Your task to perform on an android device: Search for Mexican restaurants on Maps Image 0: 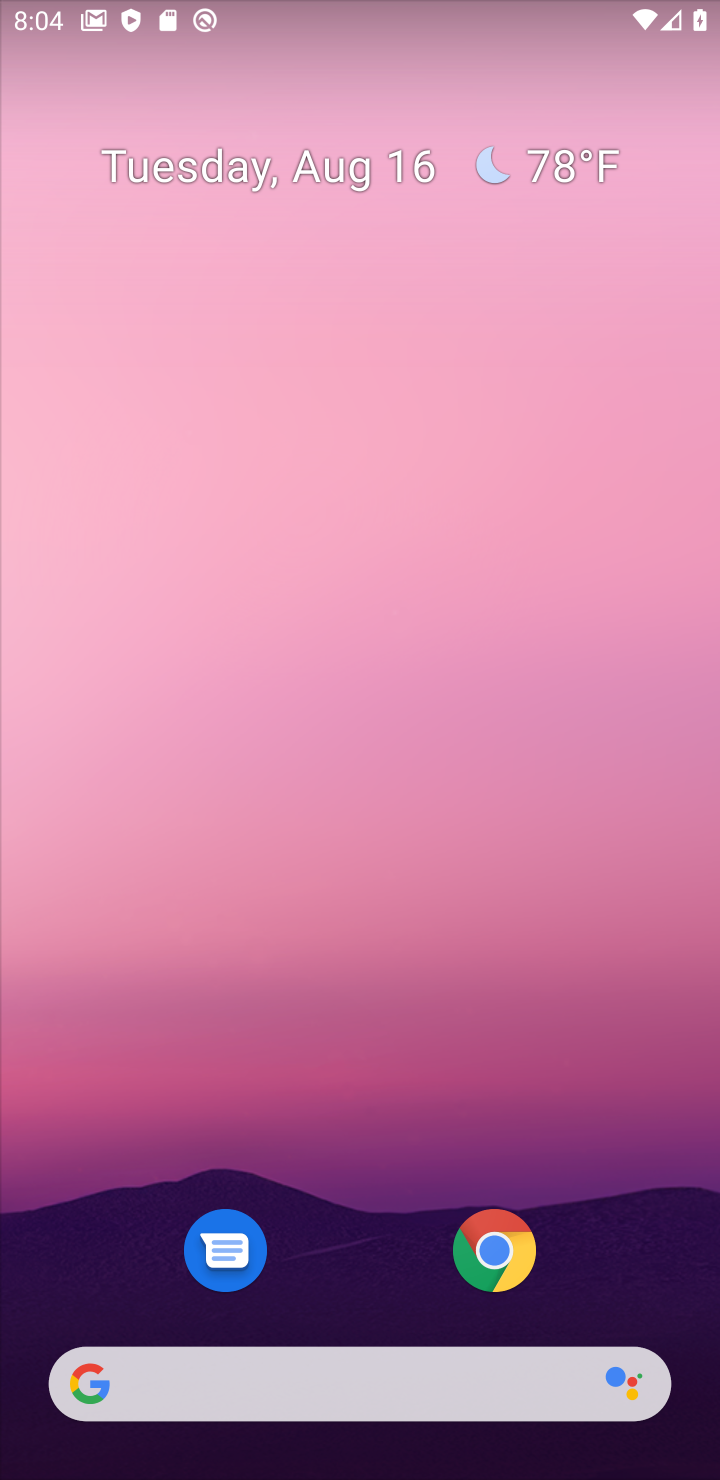
Step 0: drag from (404, 1280) to (275, 261)
Your task to perform on an android device: Search for Mexican restaurants on Maps Image 1: 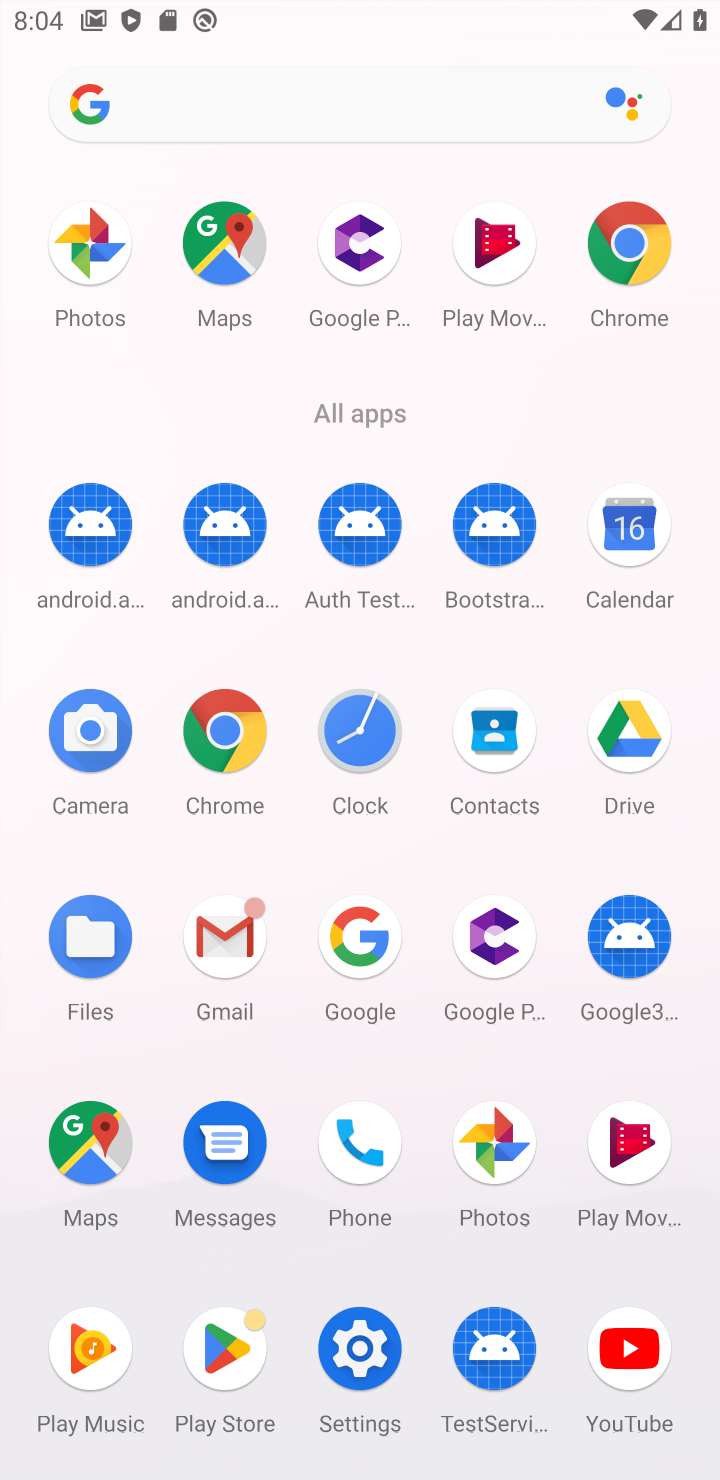
Step 1: click (250, 260)
Your task to perform on an android device: Search for Mexican restaurants on Maps Image 2: 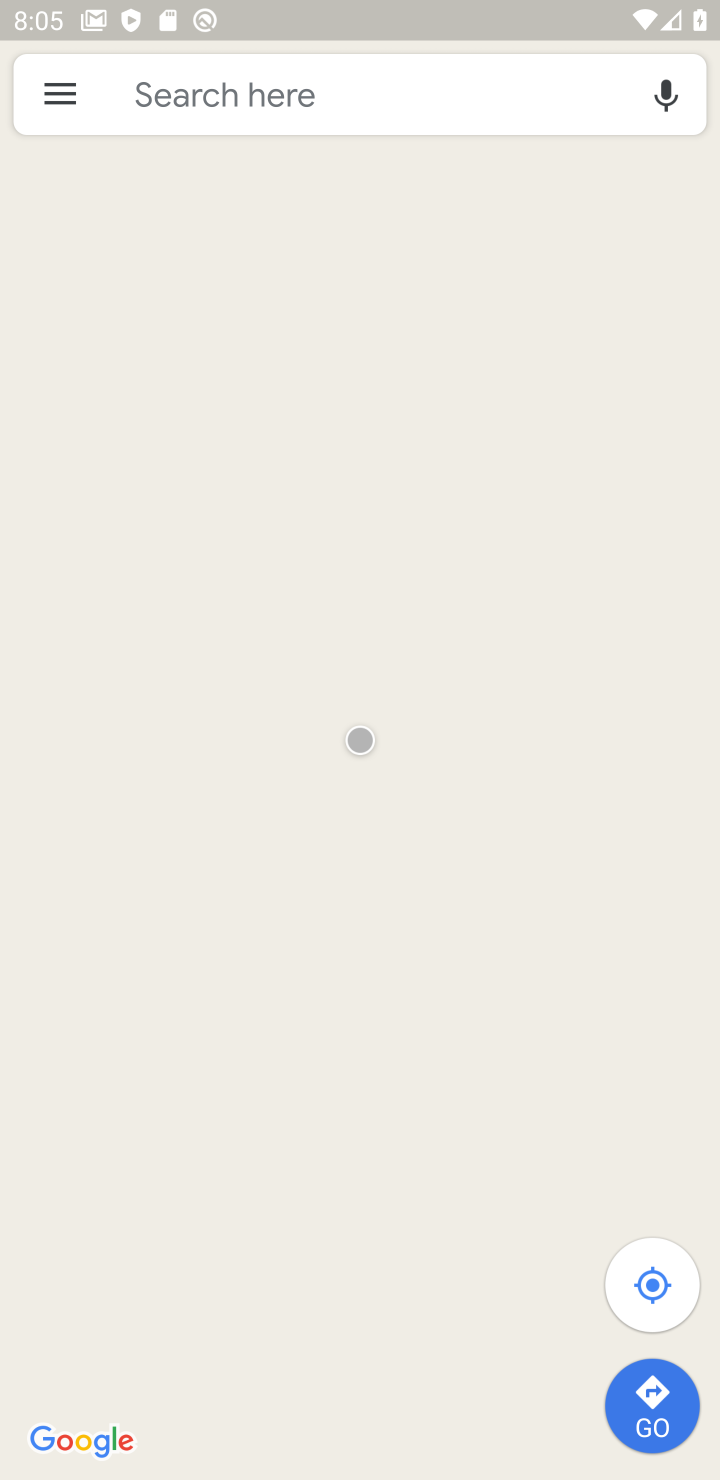
Step 2: click (247, 93)
Your task to perform on an android device: Search for Mexican restaurants on Maps Image 3: 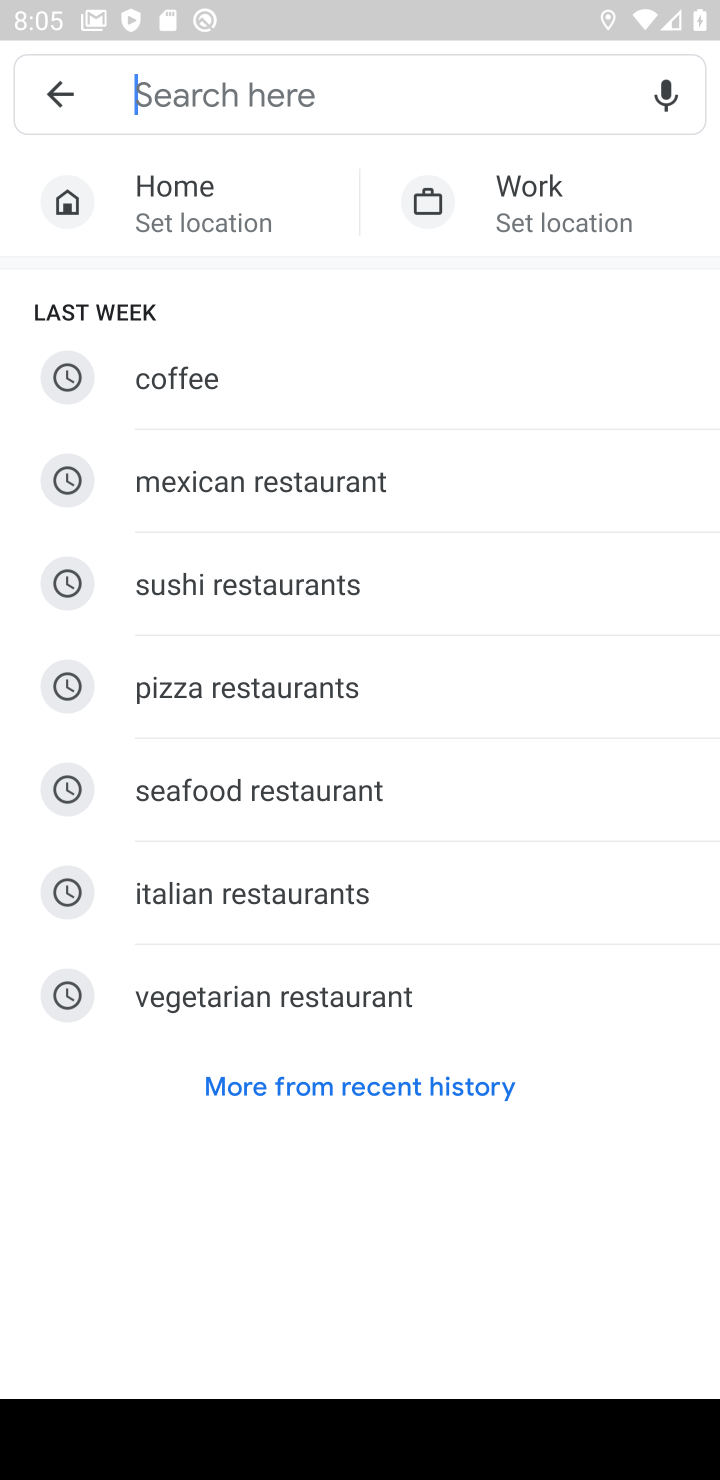
Step 3: type "mexican"
Your task to perform on an android device: Search for Mexican restaurants on Maps Image 4: 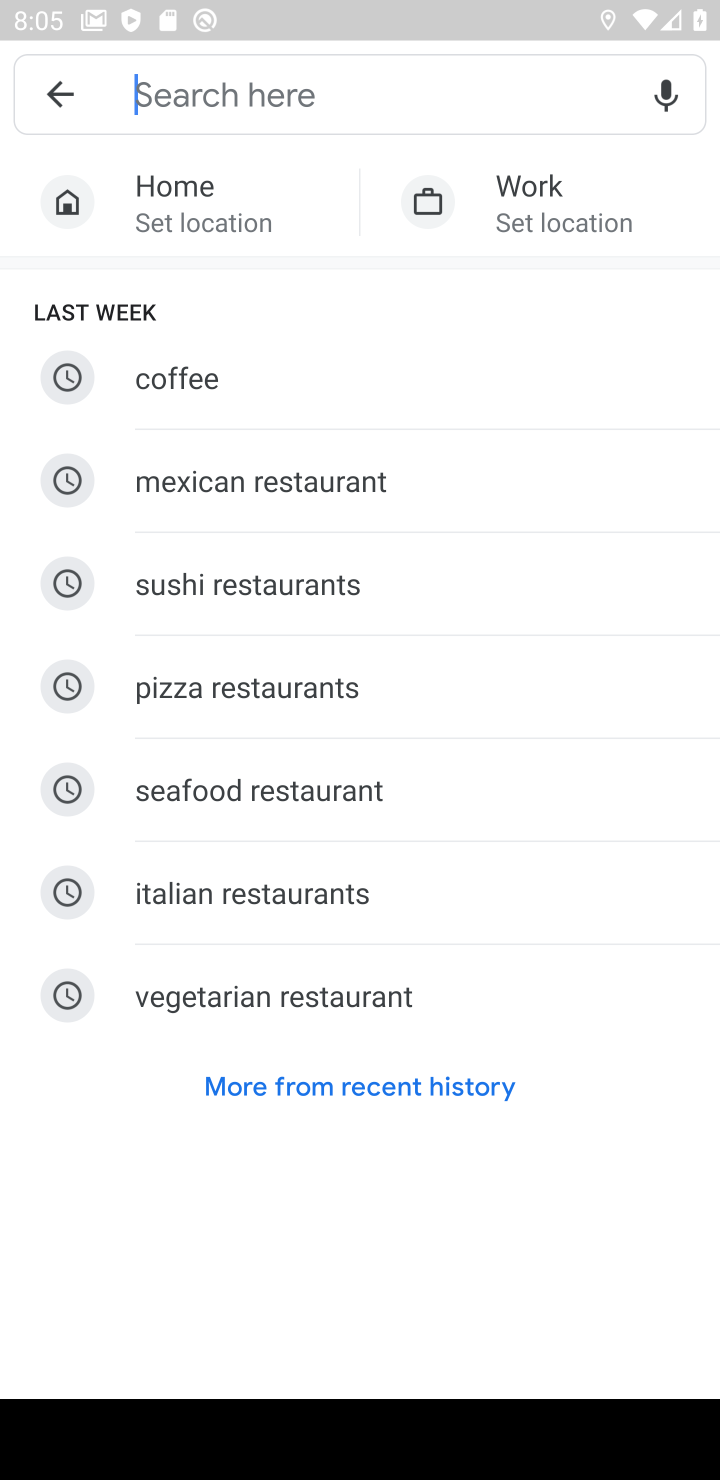
Step 4: click (490, 524)
Your task to perform on an android device: Search for Mexican restaurants on Maps Image 5: 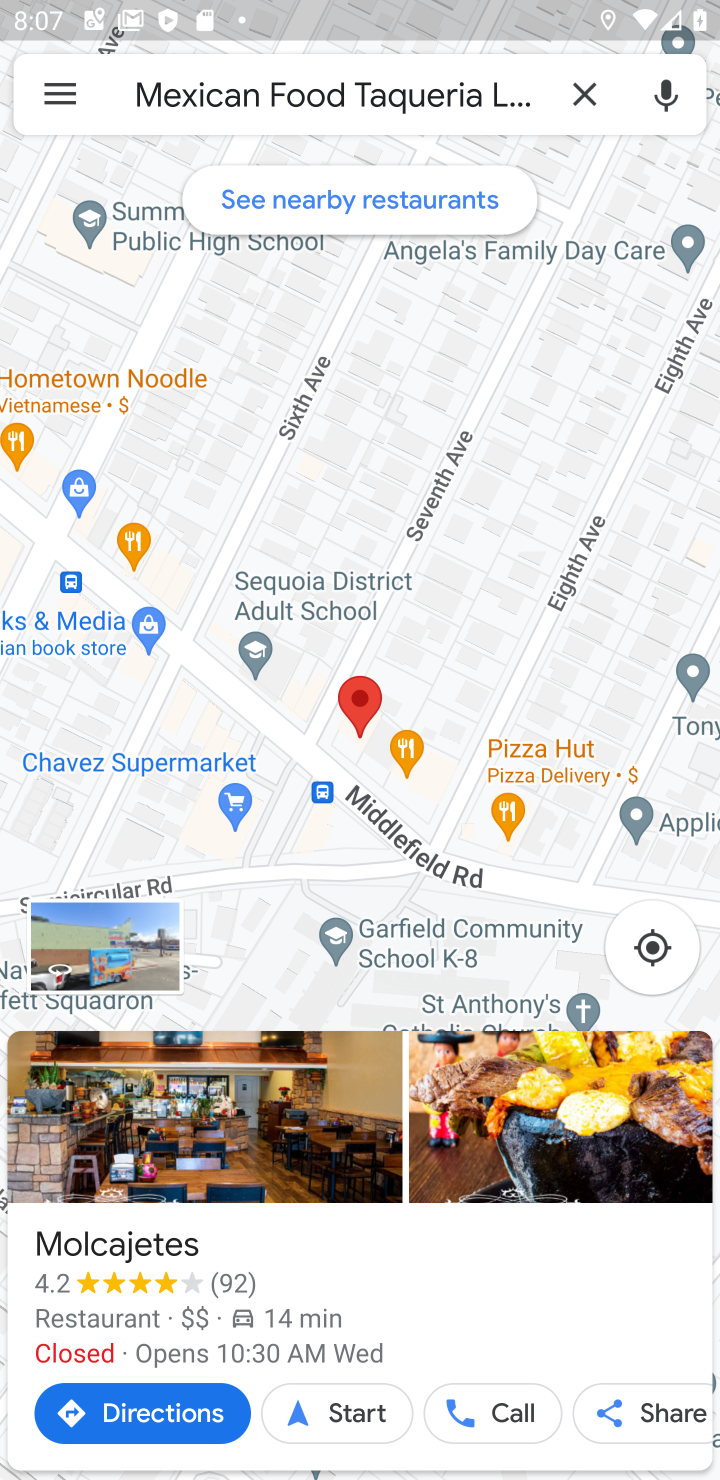
Step 5: task complete